Your task to perform on an android device: Open Google Chrome Image 0: 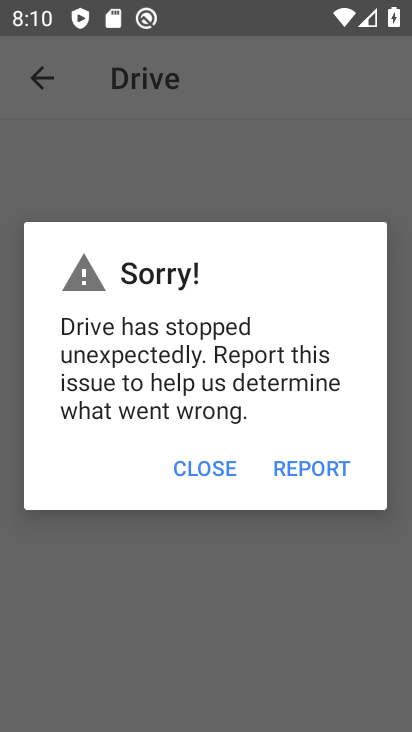
Step 0: press home button
Your task to perform on an android device: Open Google Chrome Image 1: 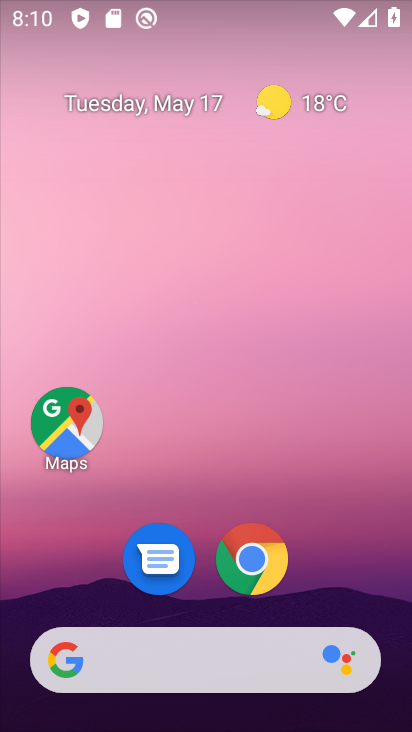
Step 1: click (249, 566)
Your task to perform on an android device: Open Google Chrome Image 2: 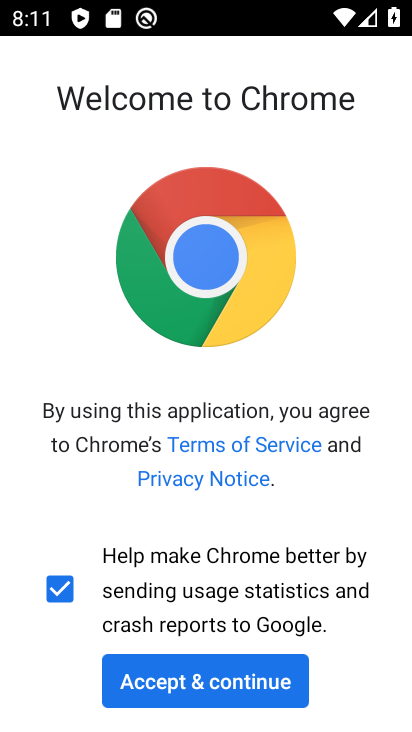
Step 2: click (213, 668)
Your task to perform on an android device: Open Google Chrome Image 3: 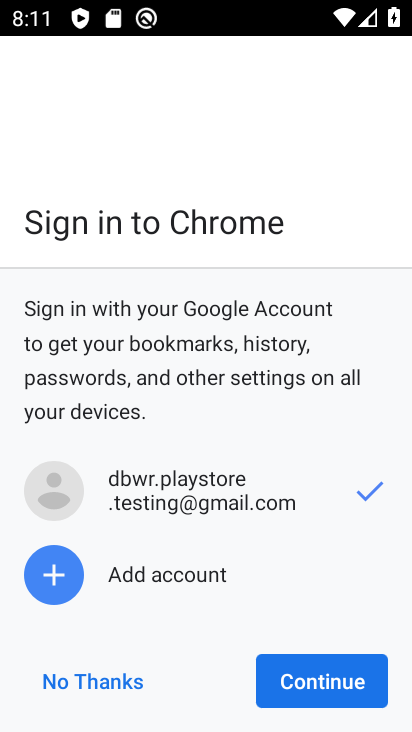
Step 3: click (294, 686)
Your task to perform on an android device: Open Google Chrome Image 4: 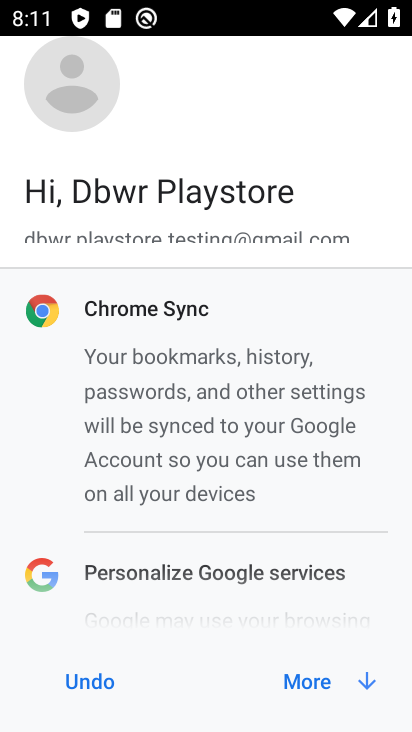
Step 4: click (346, 676)
Your task to perform on an android device: Open Google Chrome Image 5: 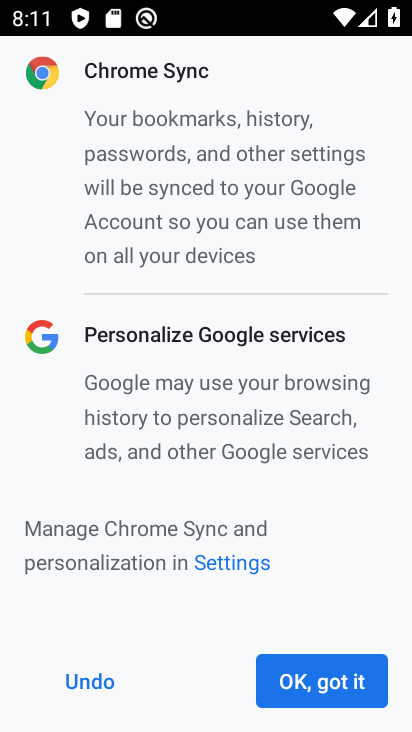
Step 5: click (346, 676)
Your task to perform on an android device: Open Google Chrome Image 6: 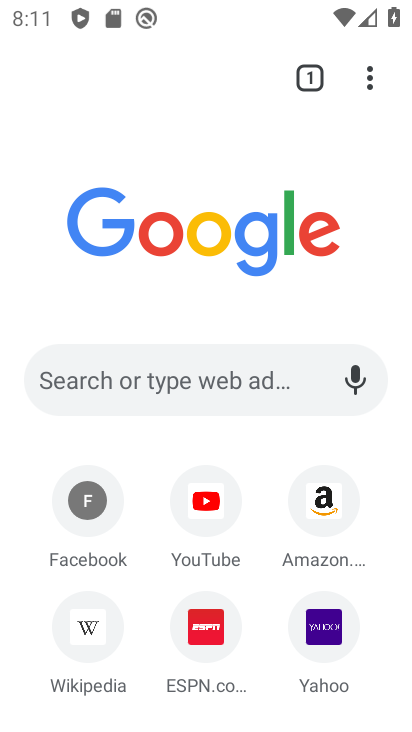
Step 6: task complete